Your task to perform on an android device: turn off smart reply in the gmail app Image 0: 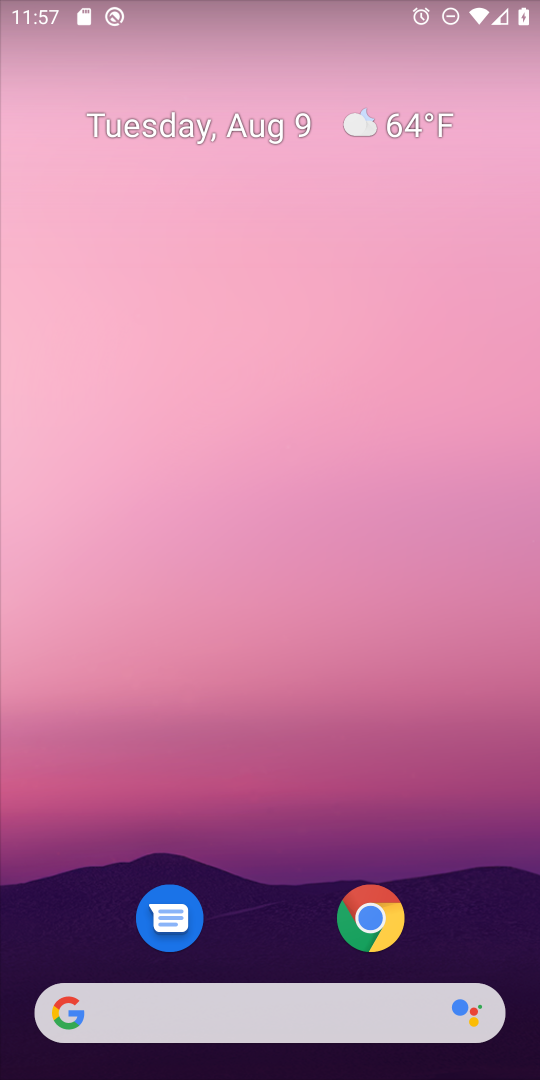
Step 0: drag from (294, 960) to (246, 222)
Your task to perform on an android device: turn off smart reply in the gmail app Image 1: 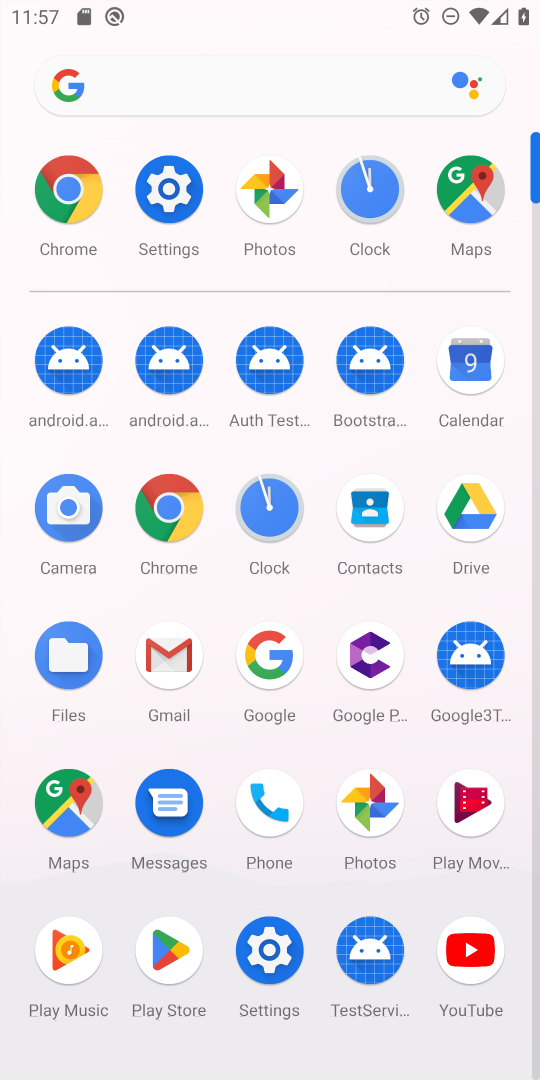
Step 1: click (167, 653)
Your task to perform on an android device: turn off smart reply in the gmail app Image 2: 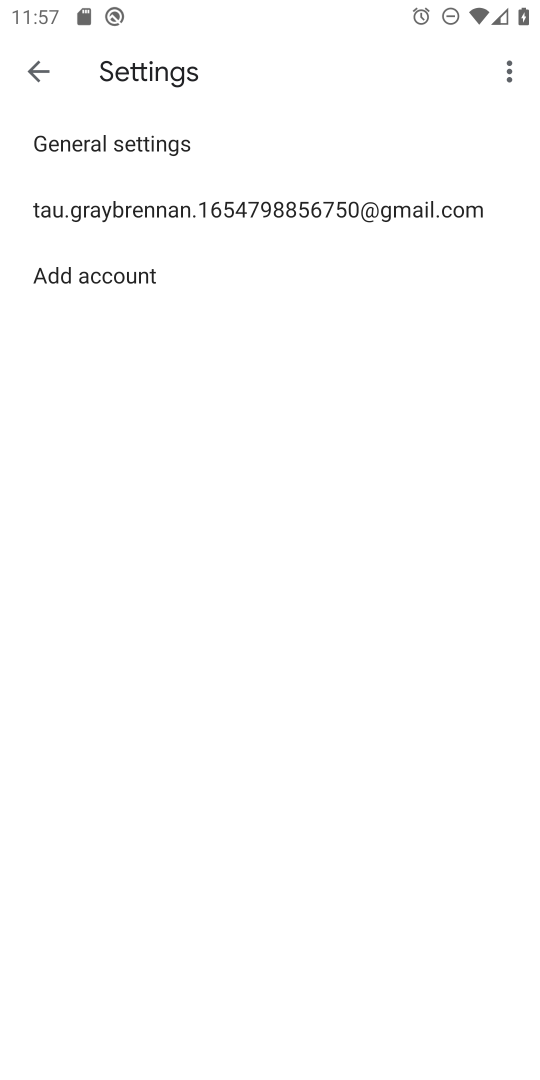
Step 2: click (95, 211)
Your task to perform on an android device: turn off smart reply in the gmail app Image 3: 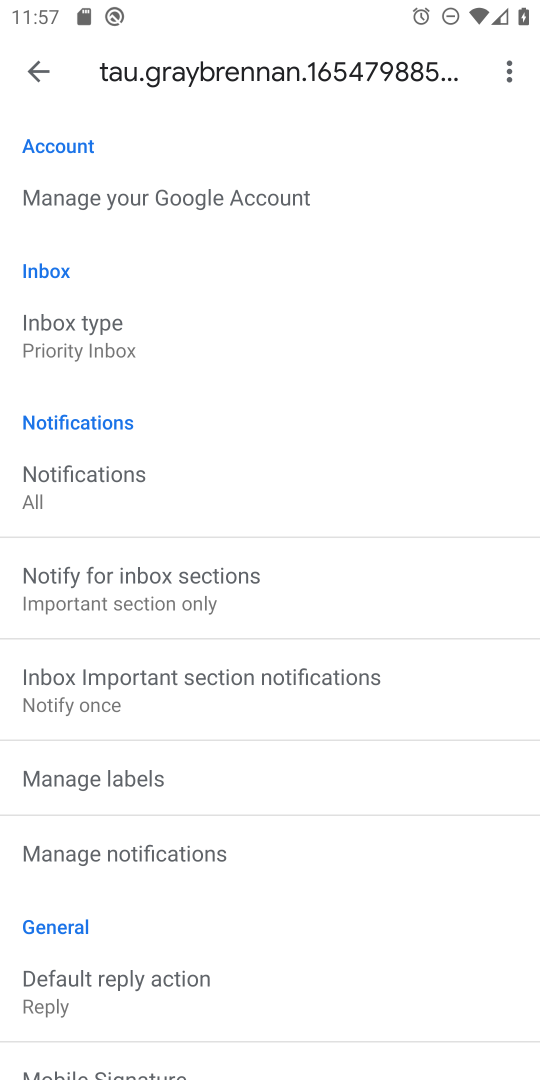
Step 3: drag from (376, 798) to (404, 242)
Your task to perform on an android device: turn off smart reply in the gmail app Image 4: 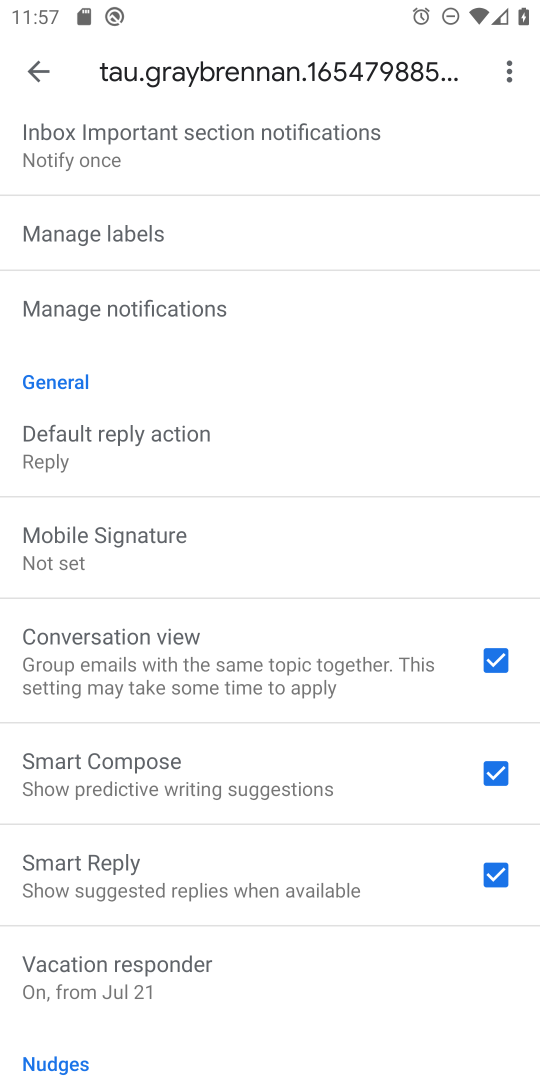
Step 4: click (491, 871)
Your task to perform on an android device: turn off smart reply in the gmail app Image 5: 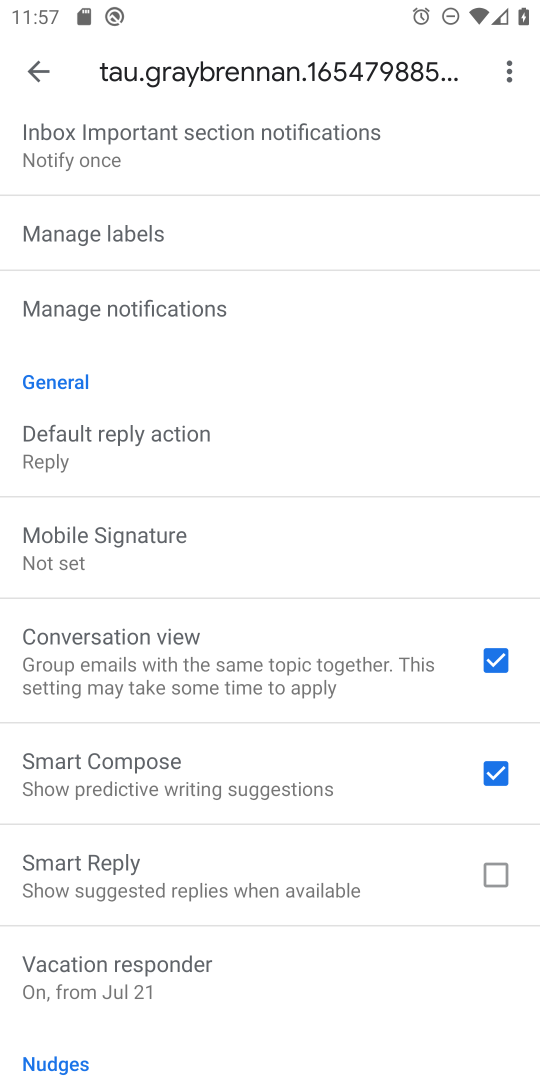
Step 5: task complete